Your task to perform on an android device: Open eBay Image 0: 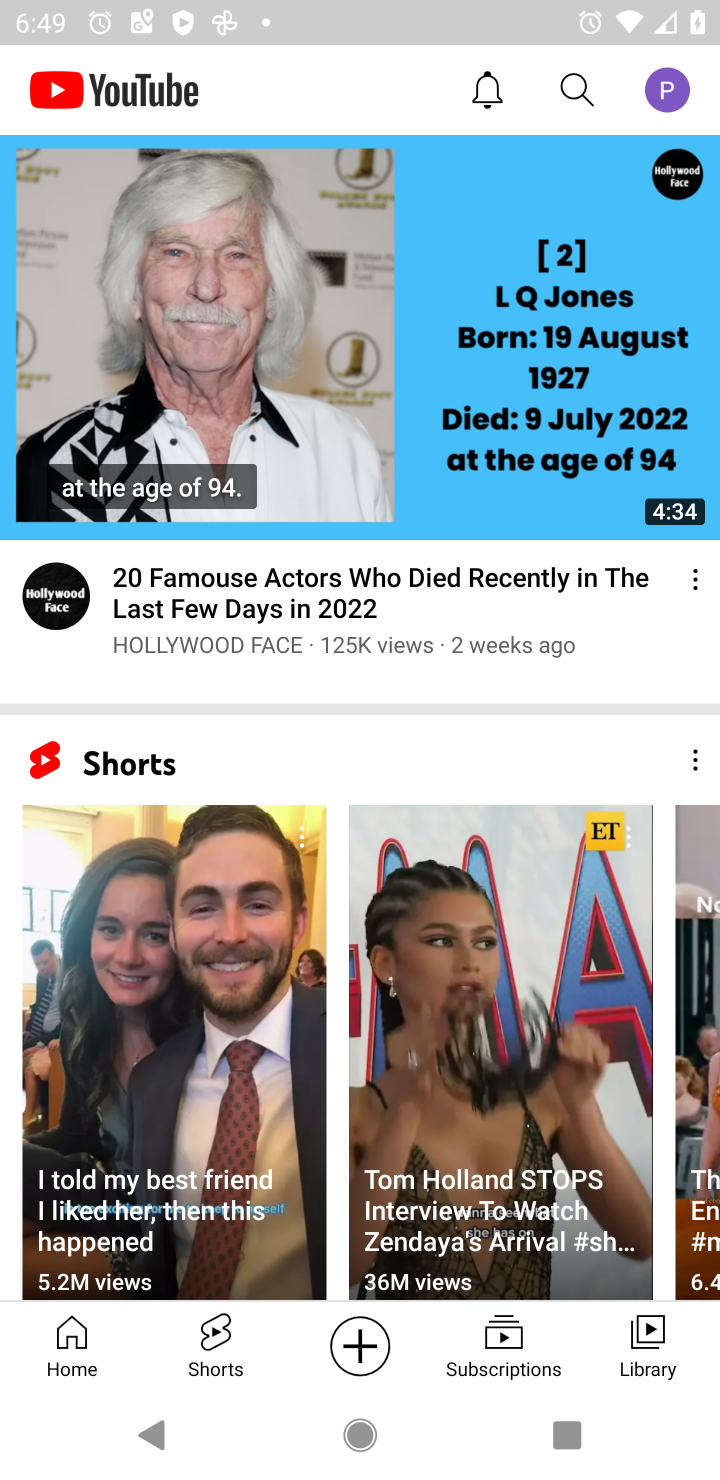
Step 0: press home button
Your task to perform on an android device: Open eBay Image 1: 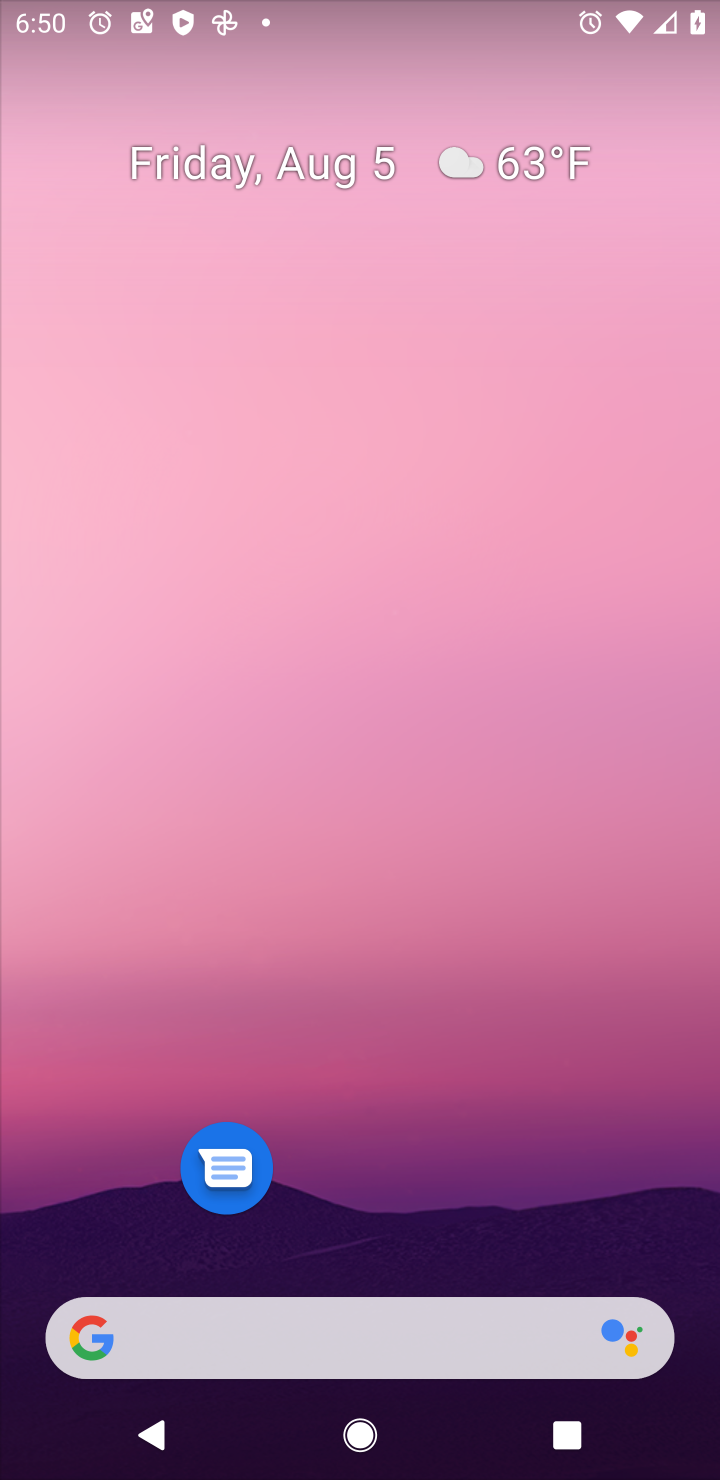
Step 1: click (96, 1349)
Your task to perform on an android device: Open eBay Image 2: 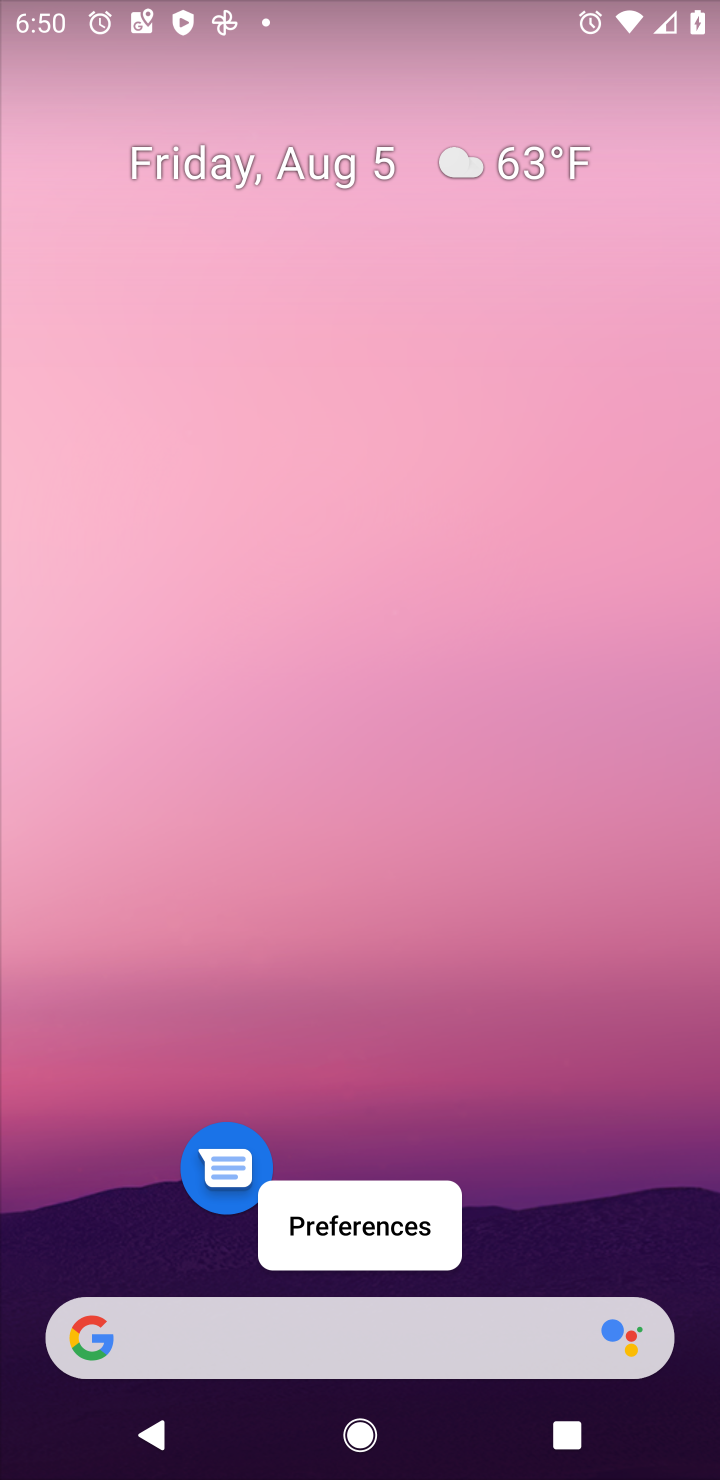
Step 2: click (99, 1359)
Your task to perform on an android device: Open eBay Image 3: 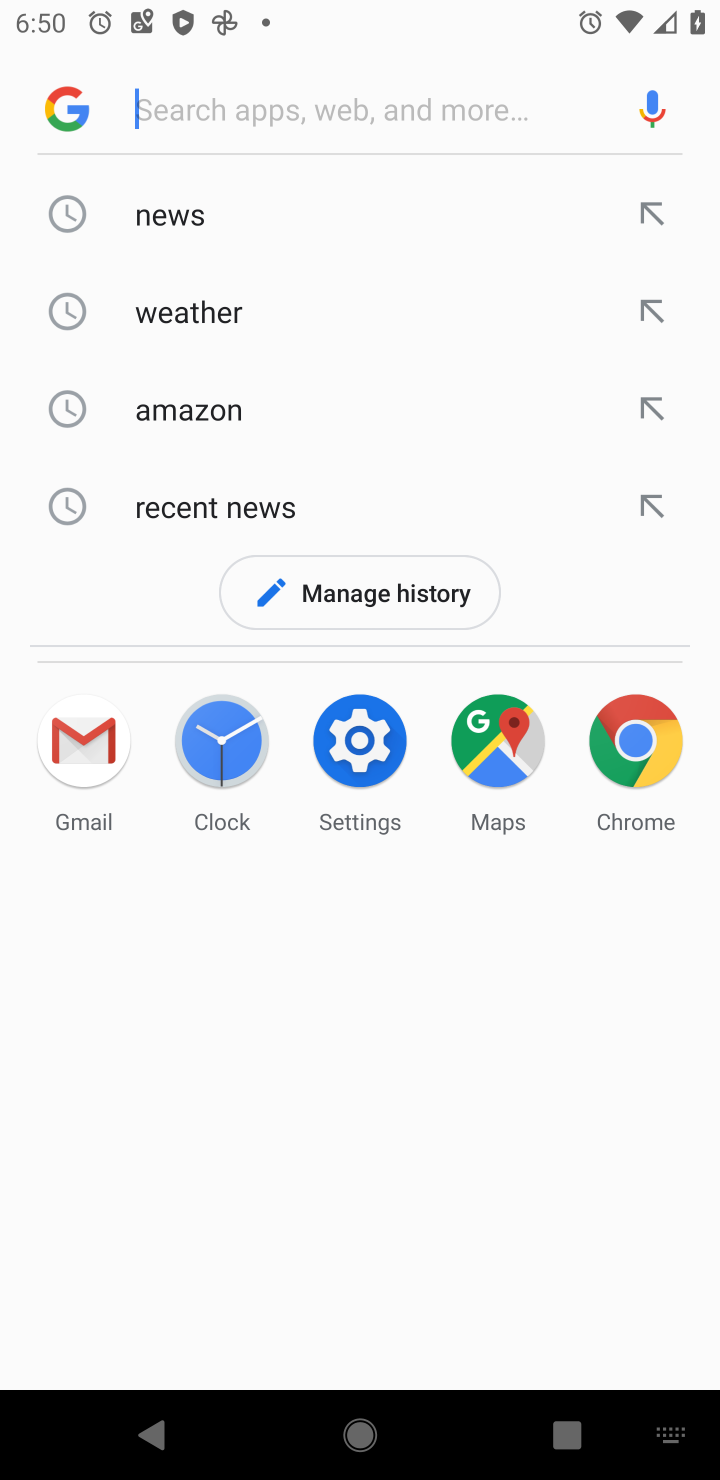
Step 3: type "eBay"
Your task to perform on an android device: Open eBay Image 4: 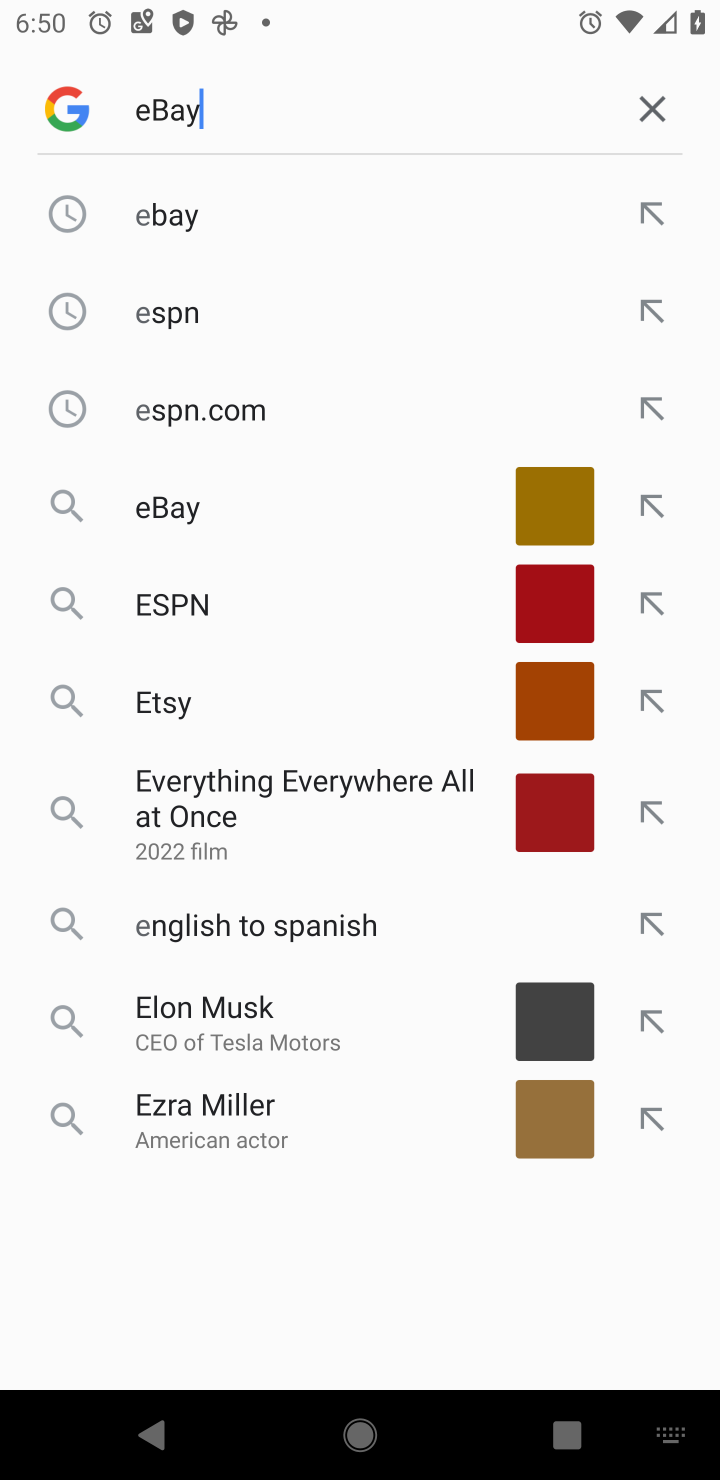
Step 4: press enter
Your task to perform on an android device: Open eBay Image 5: 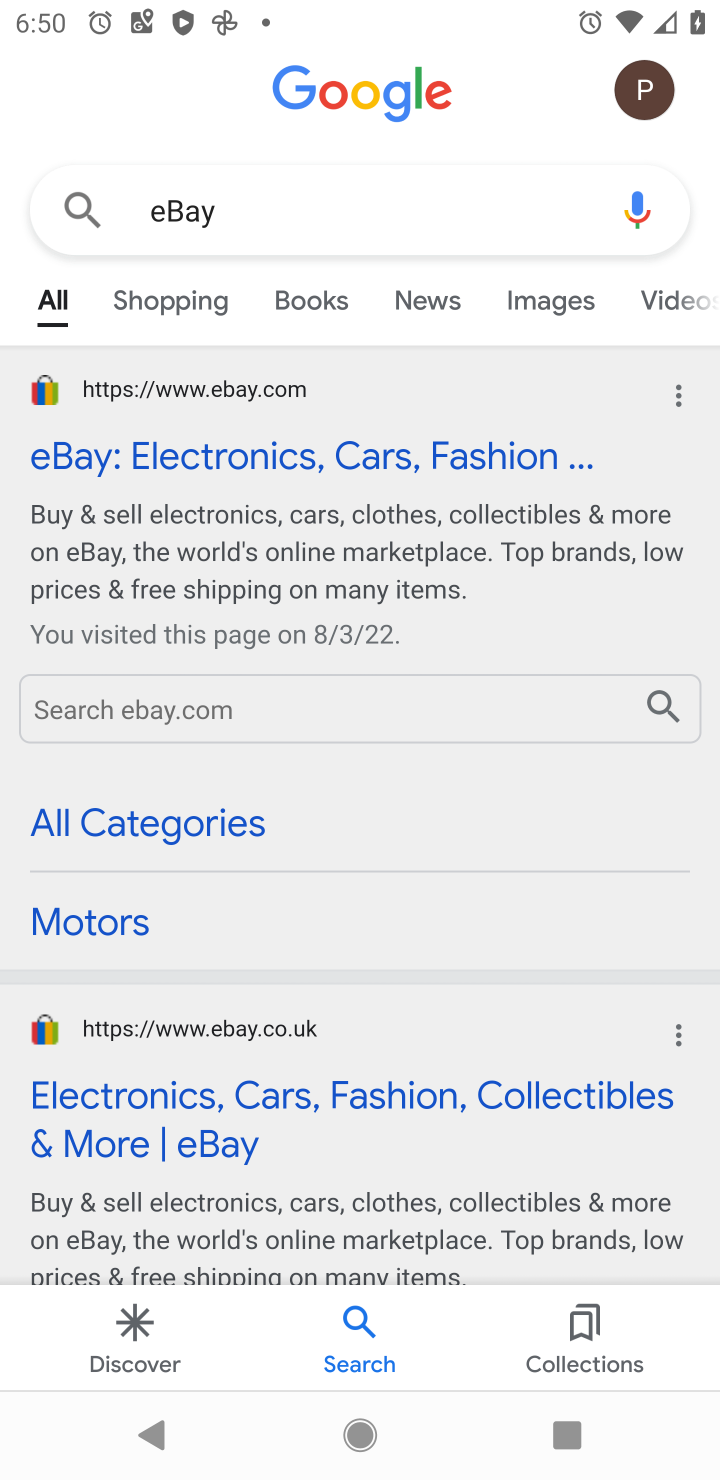
Step 5: click (128, 467)
Your task to perform on an android device: Open eBay Image 6: 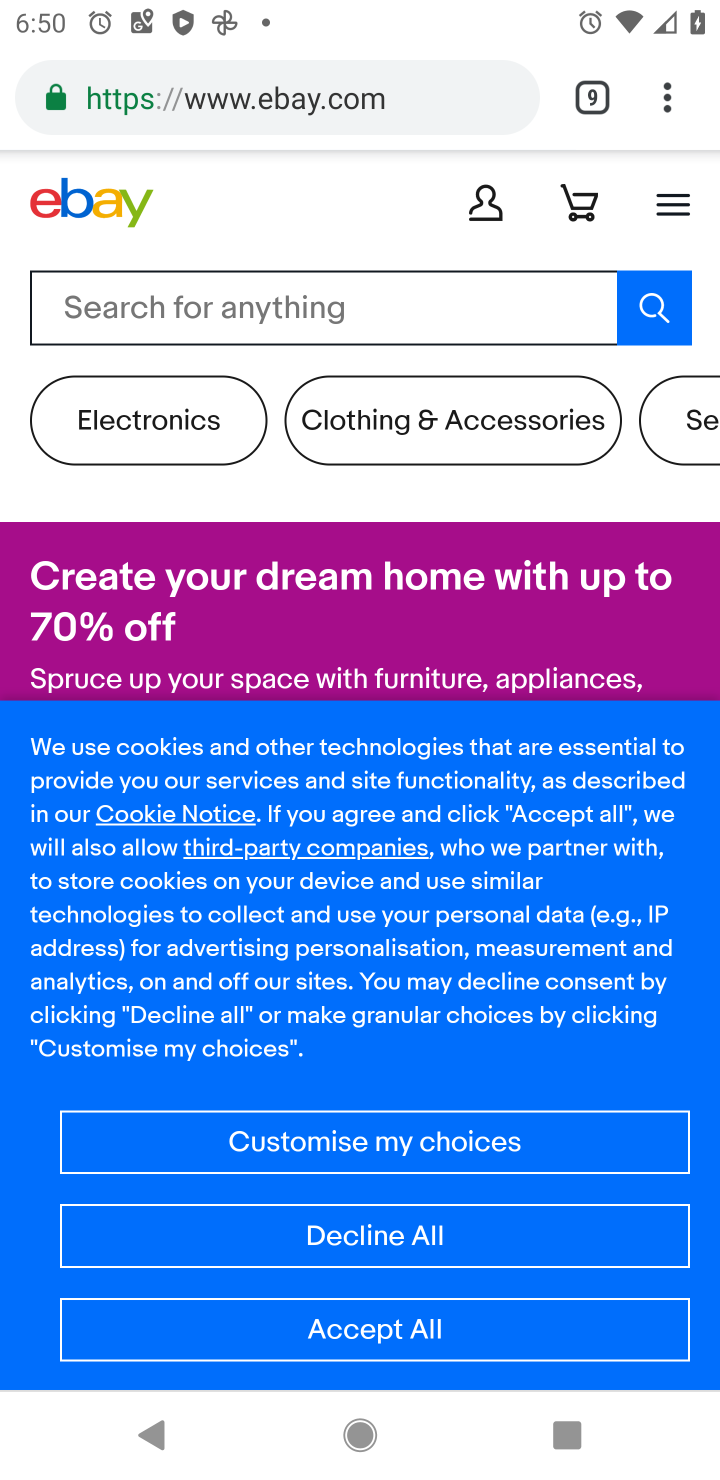
Step 6: task complete